Your task to perform on an android device: Open Youtube and go to "Your channel" Image 0: 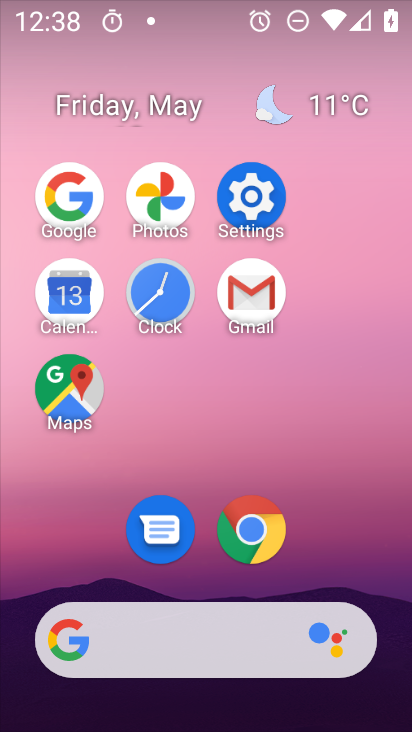
Step 0: drag from (333, 578) to (347, 156)
Your task to perform on an android device: Open Youtube and go to "Your channel" Image 1: 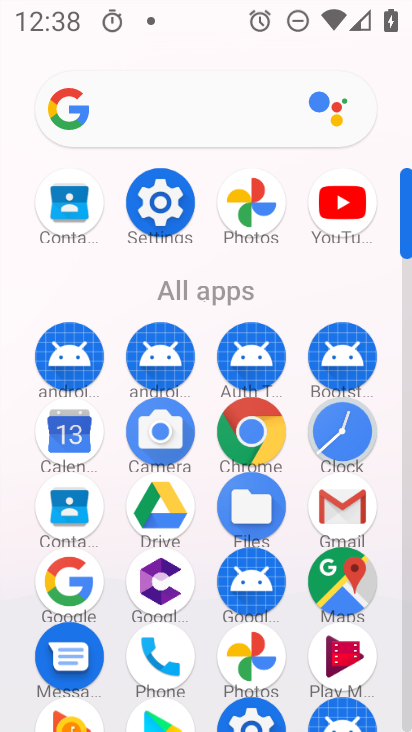
Step 1: click (357, 214)
Your task to perform on an android device: Open Youtube and go to "Your channel" Image 2: 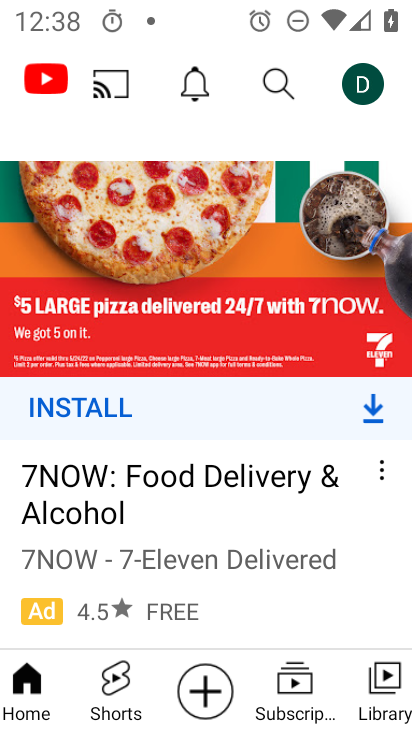
Step 2: click (364, 87)
Your task to perform on an android device: Open Youtube and go to "Your channel" Image 3: 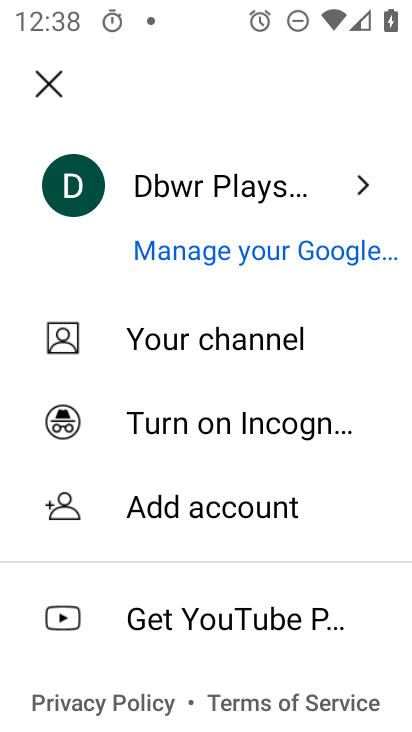
Step 3: click (277, 317)
Your task to perform on an android device: Open Youtube and go to "Your channel" Image 4: 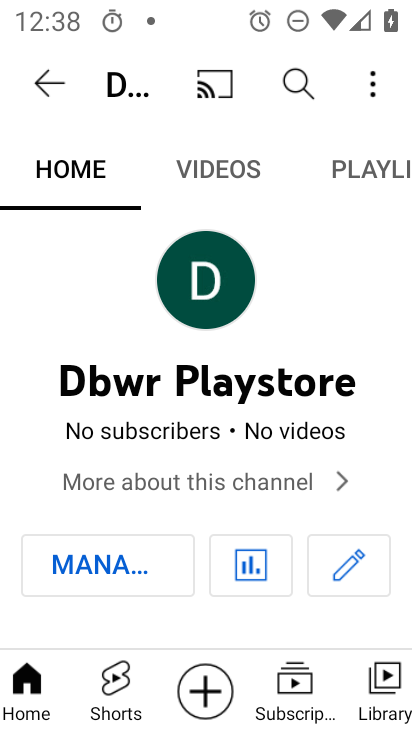
Step 4: task complete